Your task to perform on an android device: Search for pizza restaurants on Maps Image 0: 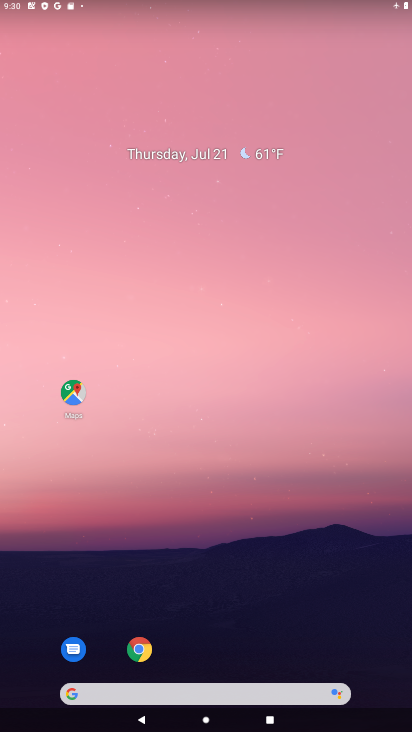
Step 0: click (73, 392)
Your task to perform on an android device: Search for pizza restaurants on Maps Image 1: 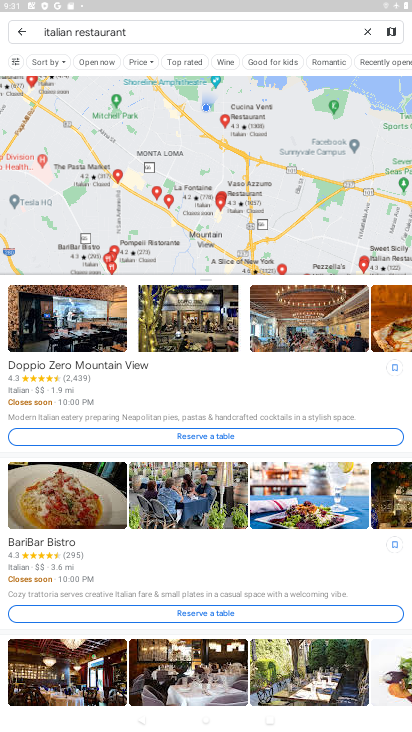
Step 1: click (367, 30)
Your task to perform on an android device: Search for pizza restaurants on Maps Image 2: 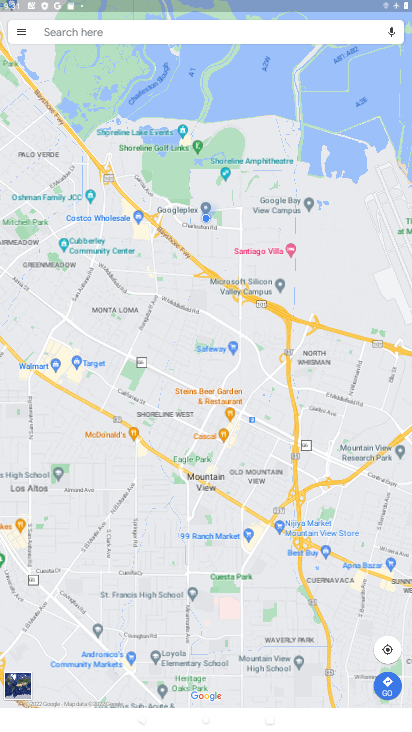
Step 2: click (316, 32)
Your task to perform on an android device: Search for pizza restaurants on Maps Image 3: 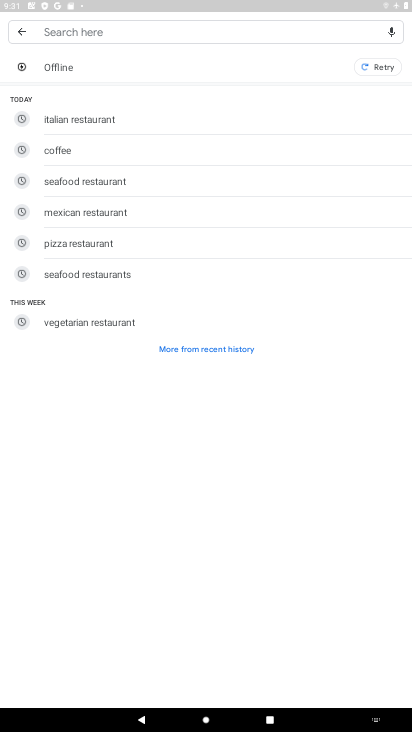
Step 3: type "pizza restaurants"
Your task to perform on an android device: Search for pizza restaurants on Maps Image 4: 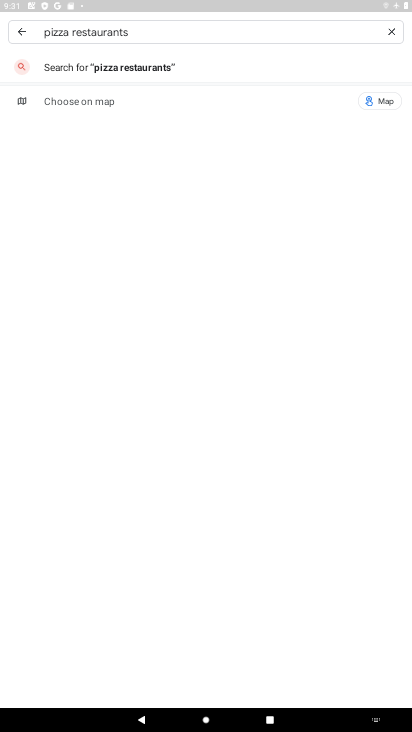
Step 4: task complete